Your task to perform on an android device: open device folders in google photos Image 0: 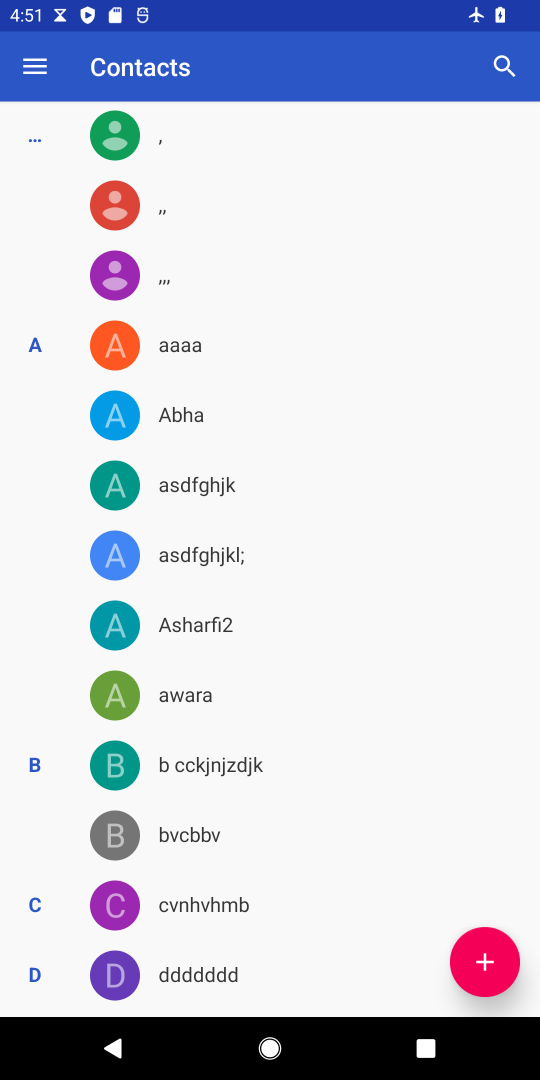
Step 0: press back button
Your task to perform on an android device: open device folders in google photos Image 1: 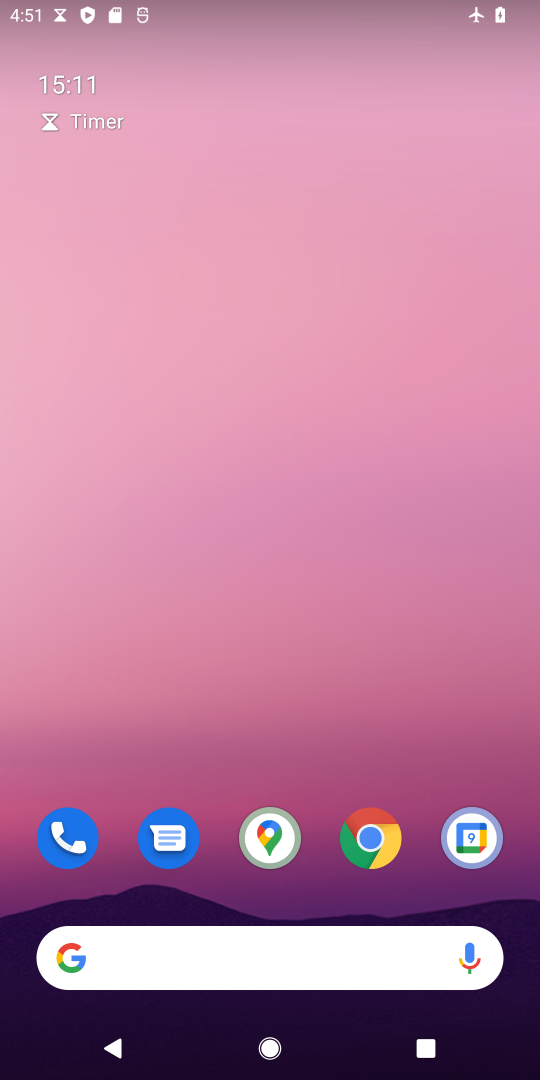
Step 1: press home button
Your task to perform on an android device: open device folders in google photos Image 2: 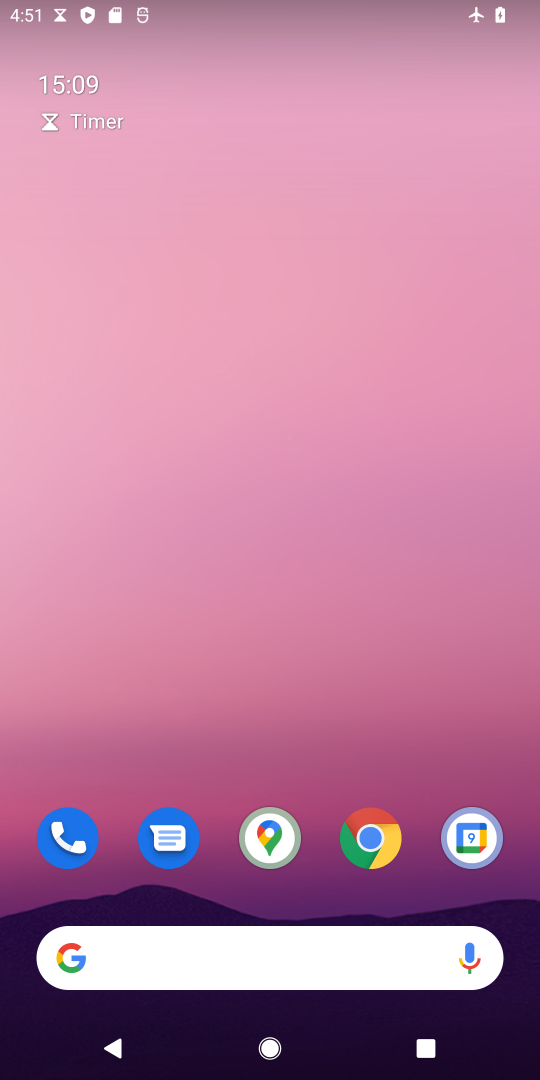
Step 2: drag from (317, 786) to (269, 222)
Your task to perform on an android device: open device folders in google photos Image 3: 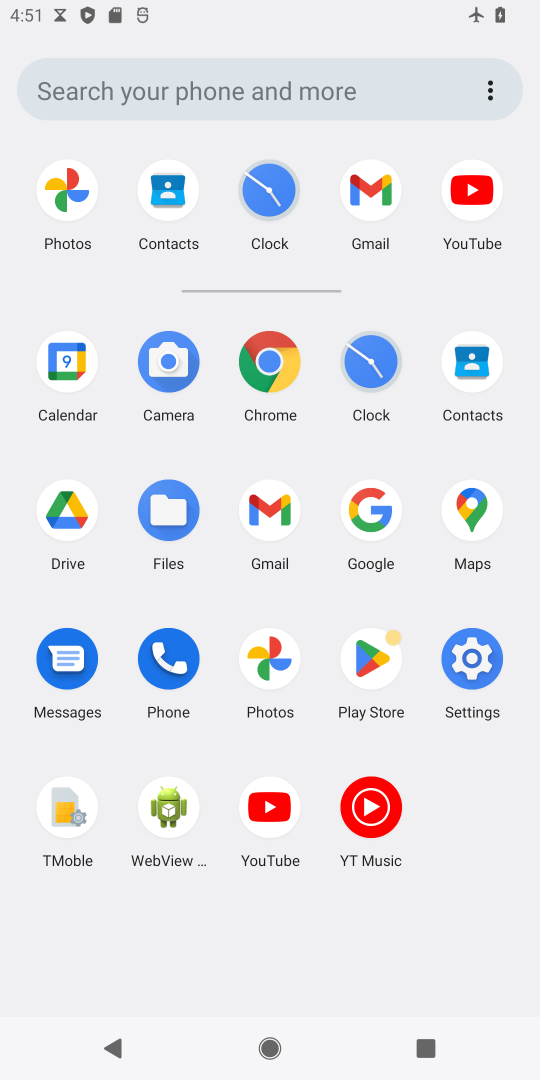
Step 3: click (290, 669)
Your task to perform on an android device: open device folders in google photos Image 4: 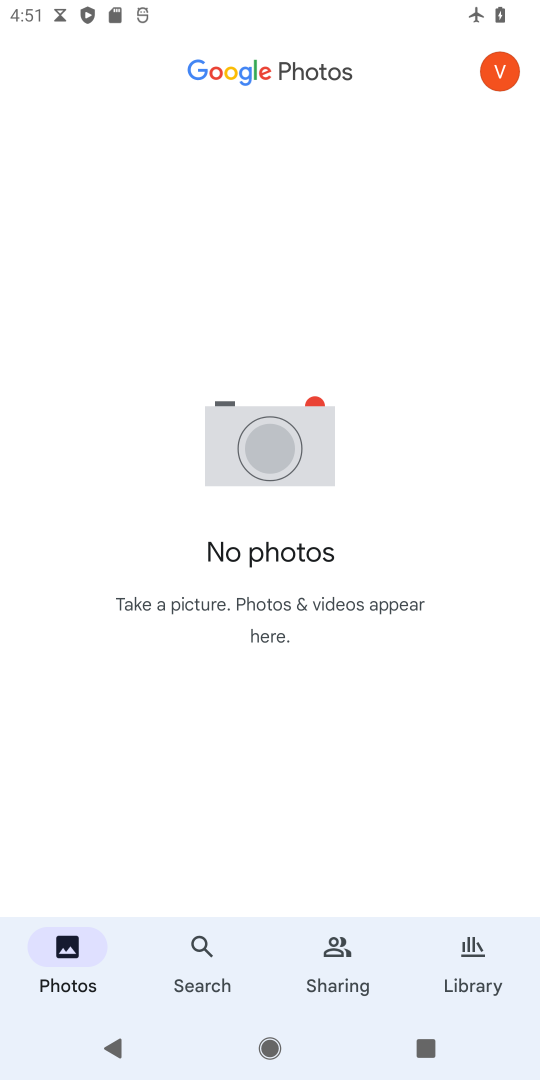
Step 4: click (469, 965)
Your task to perform on an android device: open device folders in google photos Image 5: 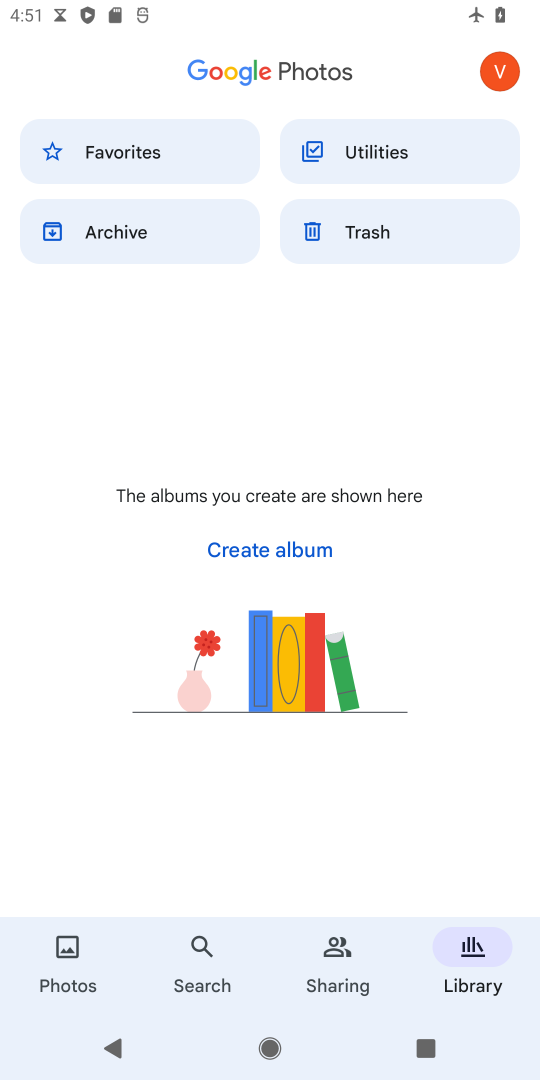
Step 5: click (350, 153)
Your task to perform on an android device: open device folders in google photos Image 6: 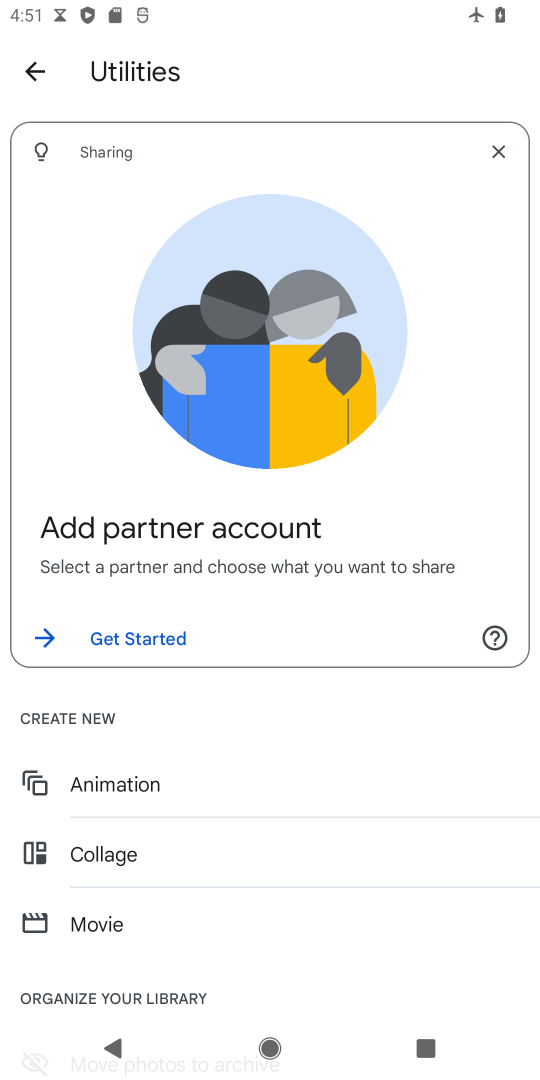
Step 6: task complete